Your task to perform on an android device: uninstall "LinkedIn" Image 0: 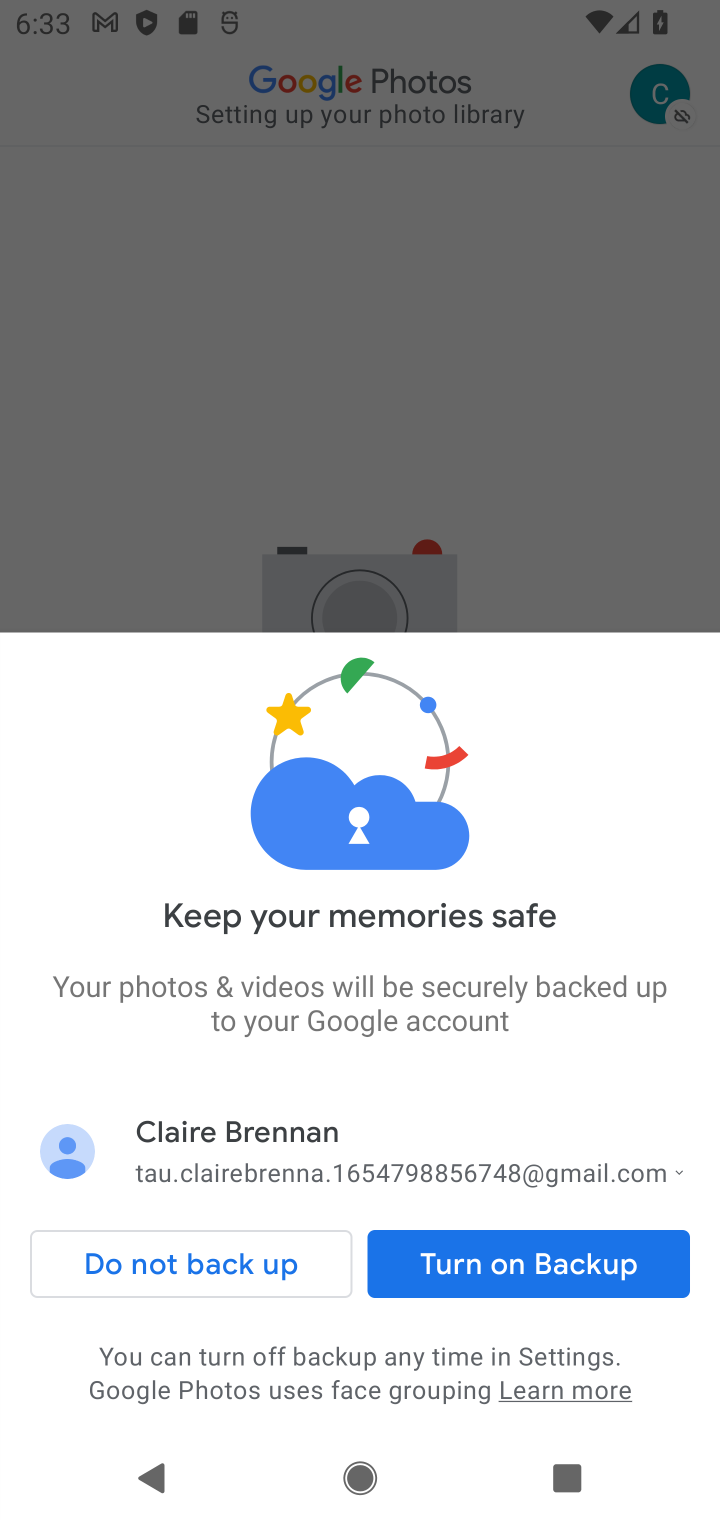
Step 0: press home button
Your task to perform on an android device: uninstall "LinkedIn" Image 1: 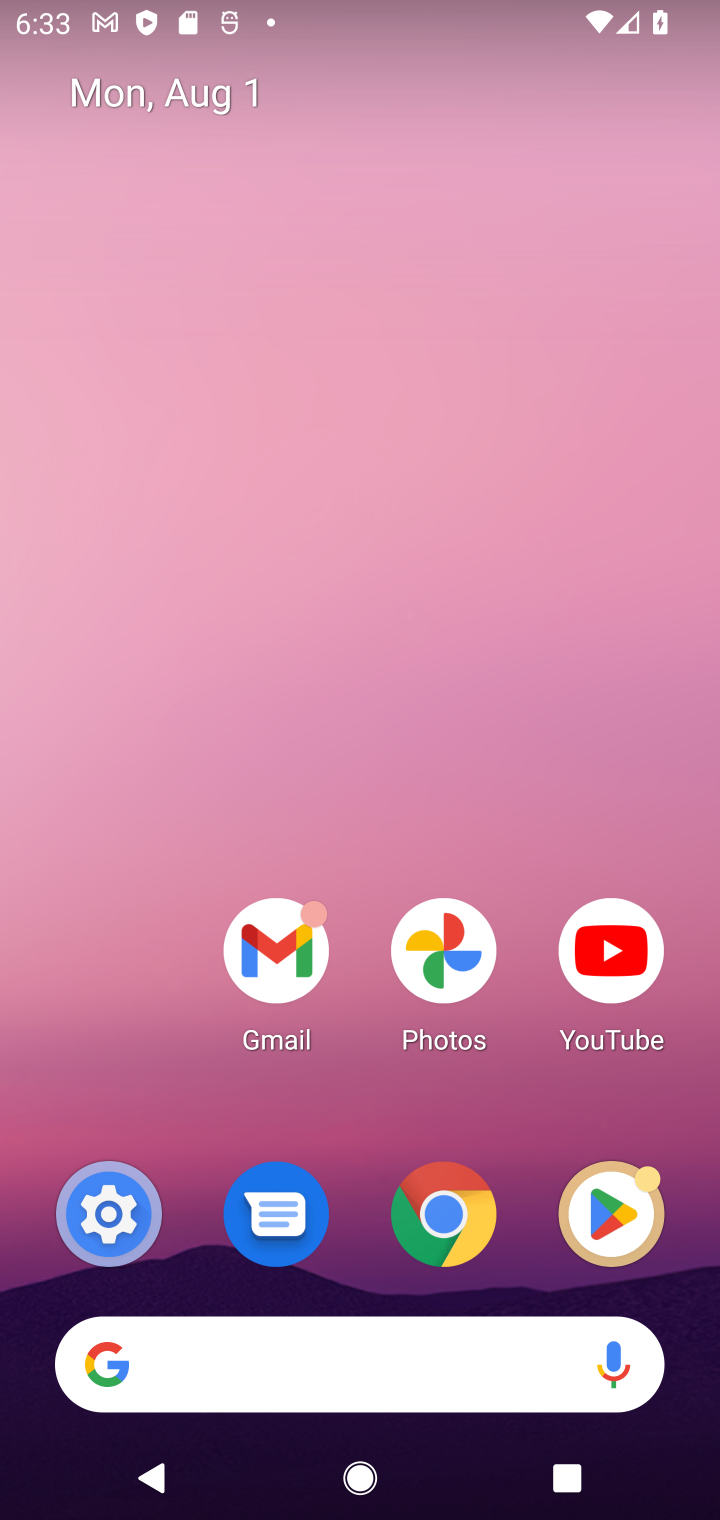
Step 1: click (607, 1194)
Your task to perform on an android device: uninstall "LinkedIn" Image 2: 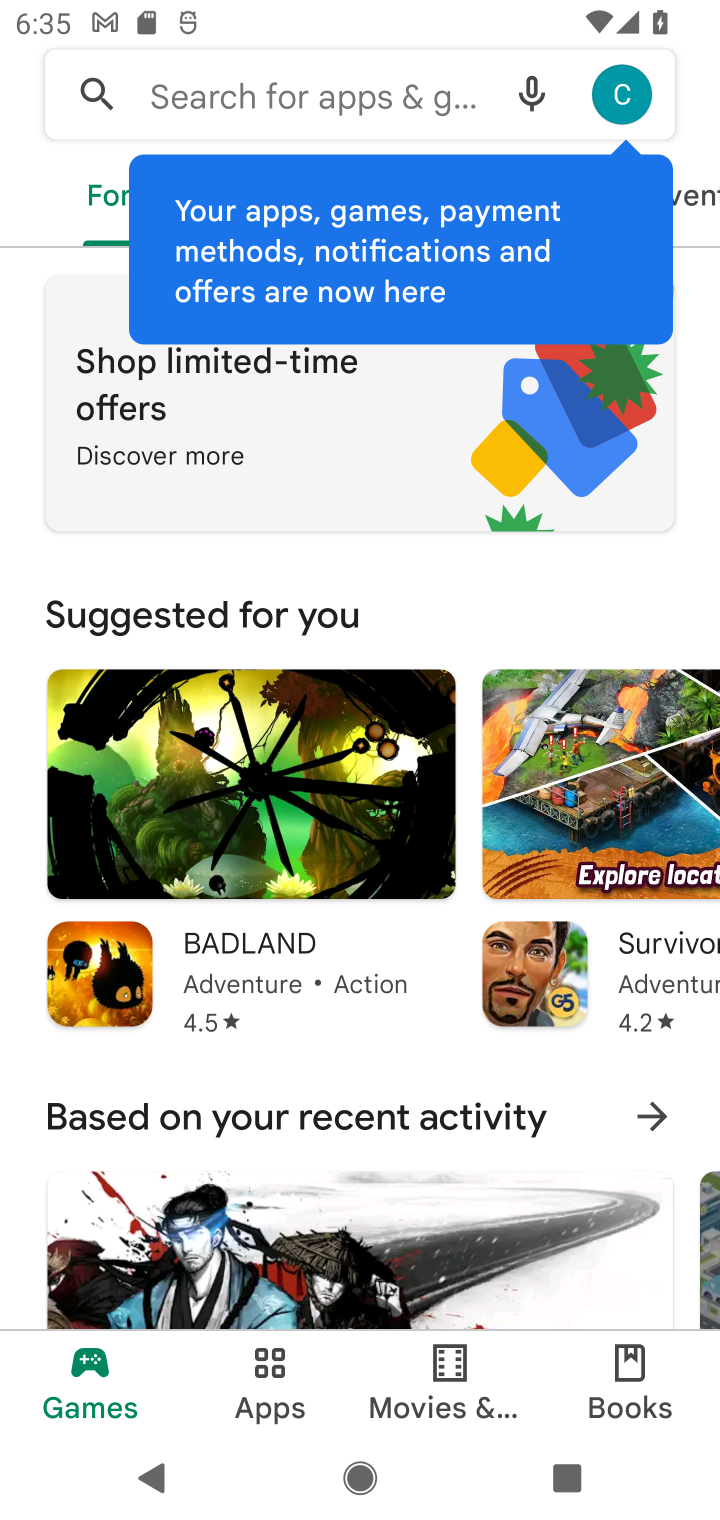
Step 2: press back button
Your task to perform on an android device: uninstall "LinkedIn" Image 3: 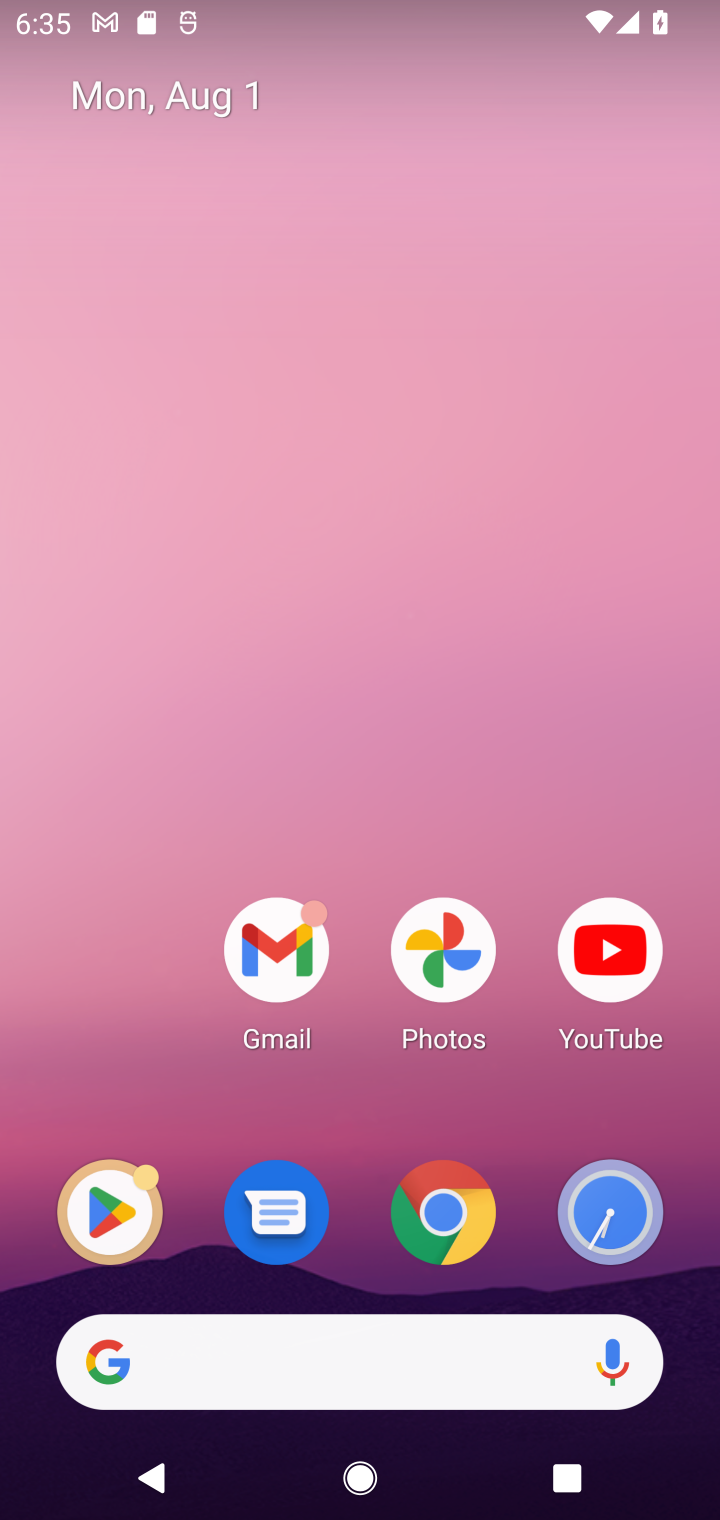
Step 3: press back button
Your task to perform on an android device: uninstall "LinkedIn" Image 4: 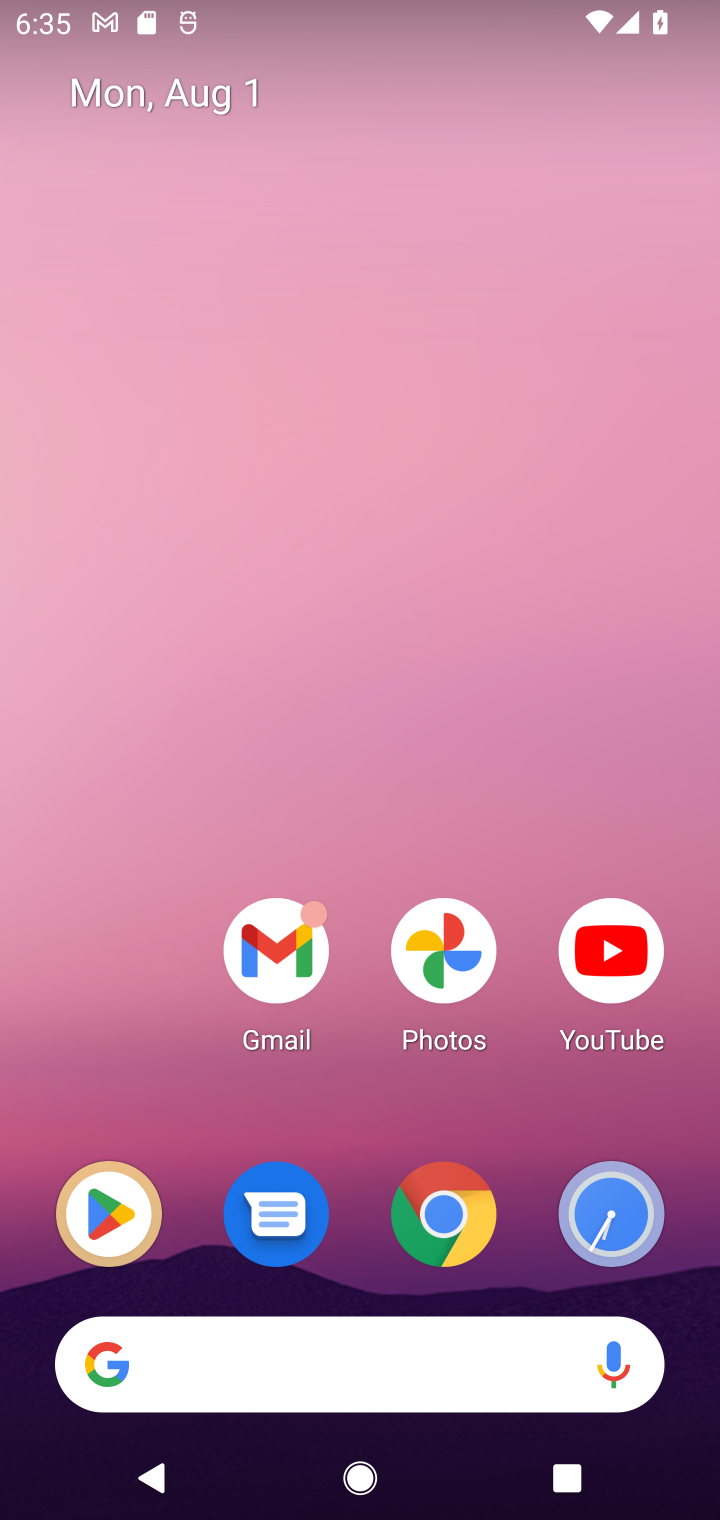
Step 4: drag from (105, 1198) to (330, 555)
Your task to perform on an android device: uninstall "LinkedIn" Image 5: 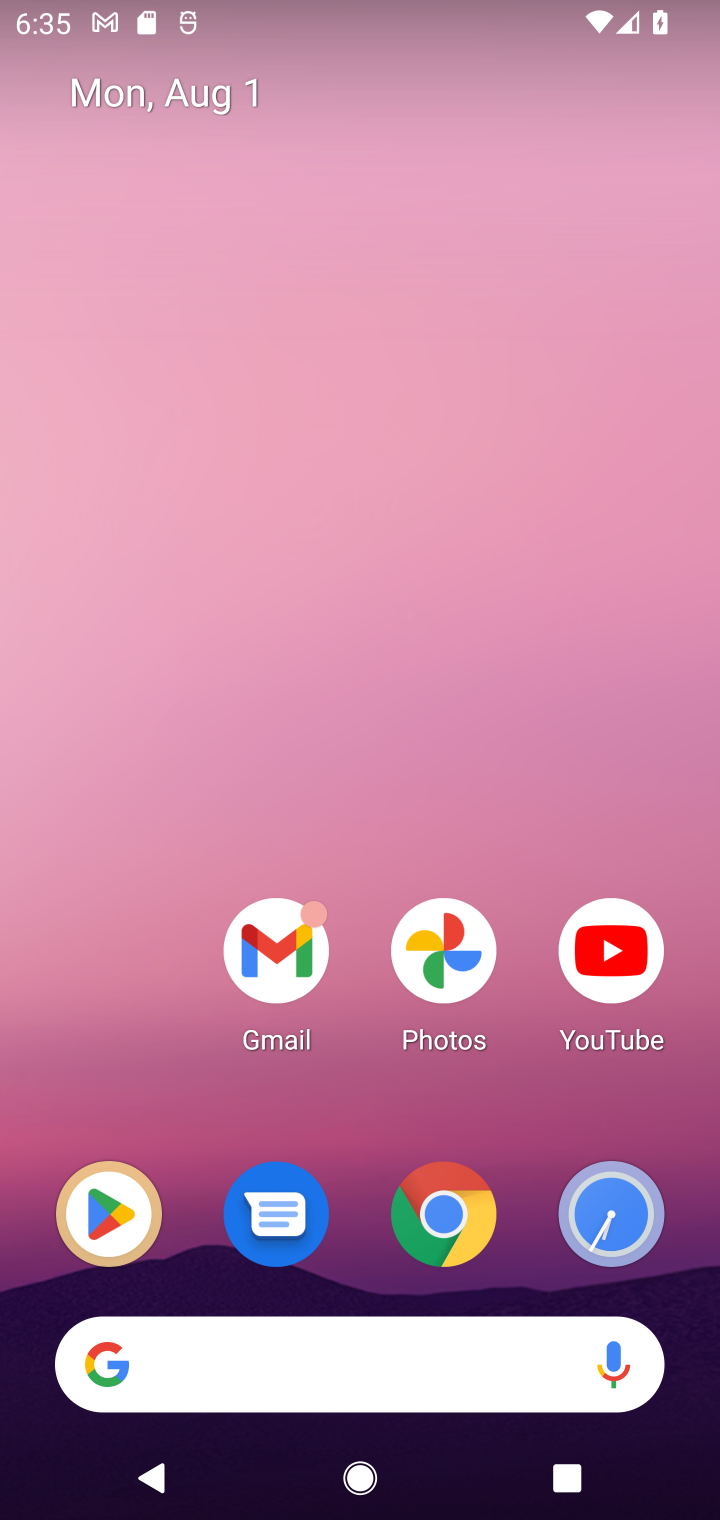
Step 5: drag from (120, 1201) to (423, 470)
Your task to perform on an android device: uninstall "LinkedIn" Image 6: 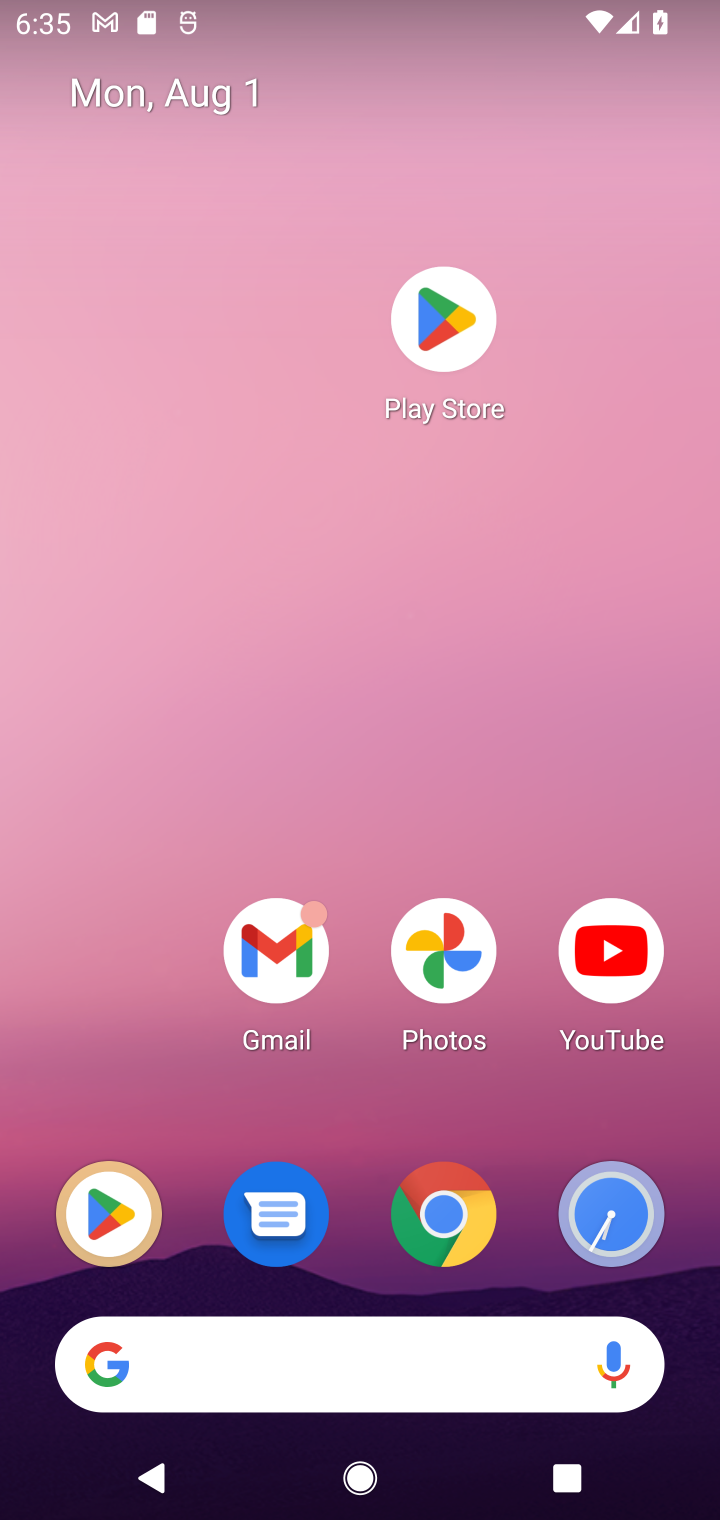
Step 6: click (416, 329)
Your task to perform on an android device: uninstall "LinkedIn" Image 7: 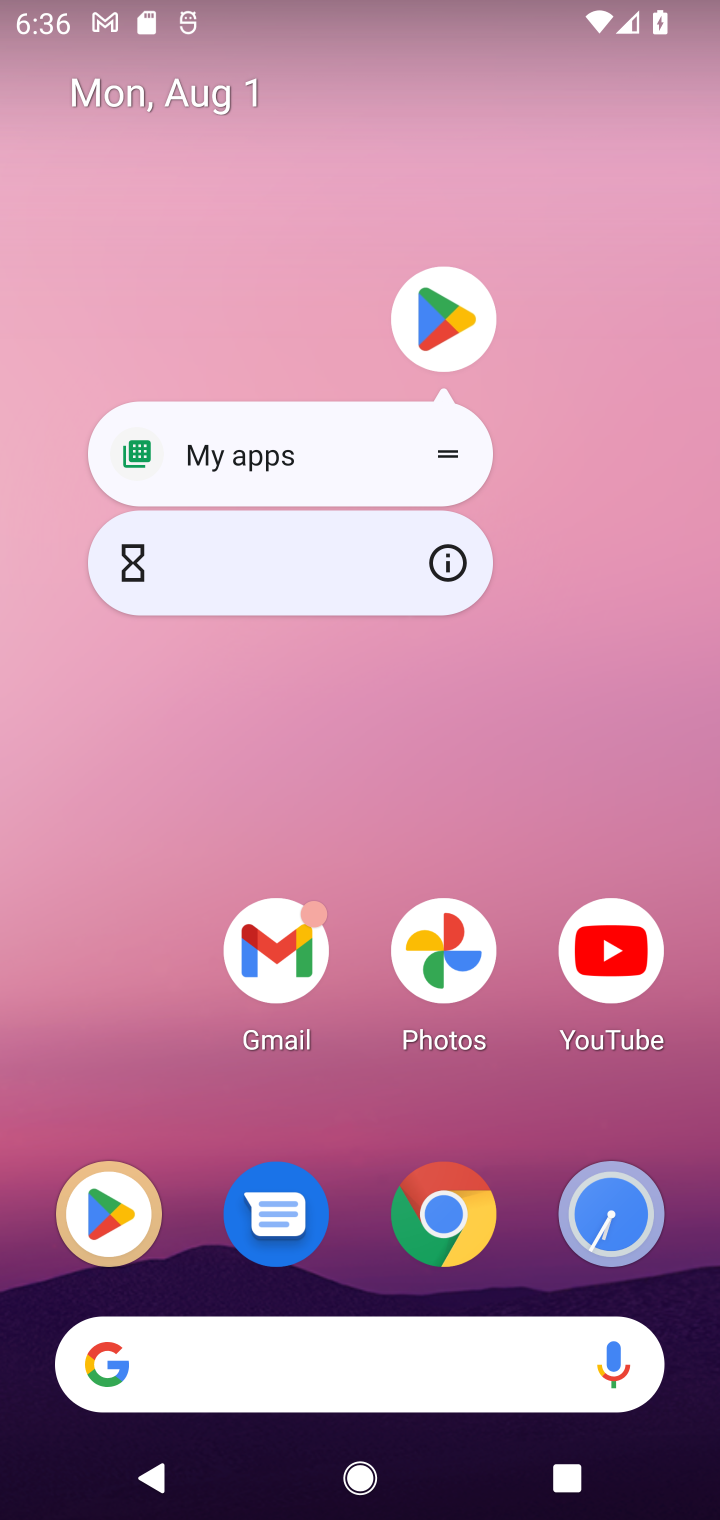
Step 7: click (415, 334)
Your task to perform on an android device: uninstall "LinkedIn" Image 8: 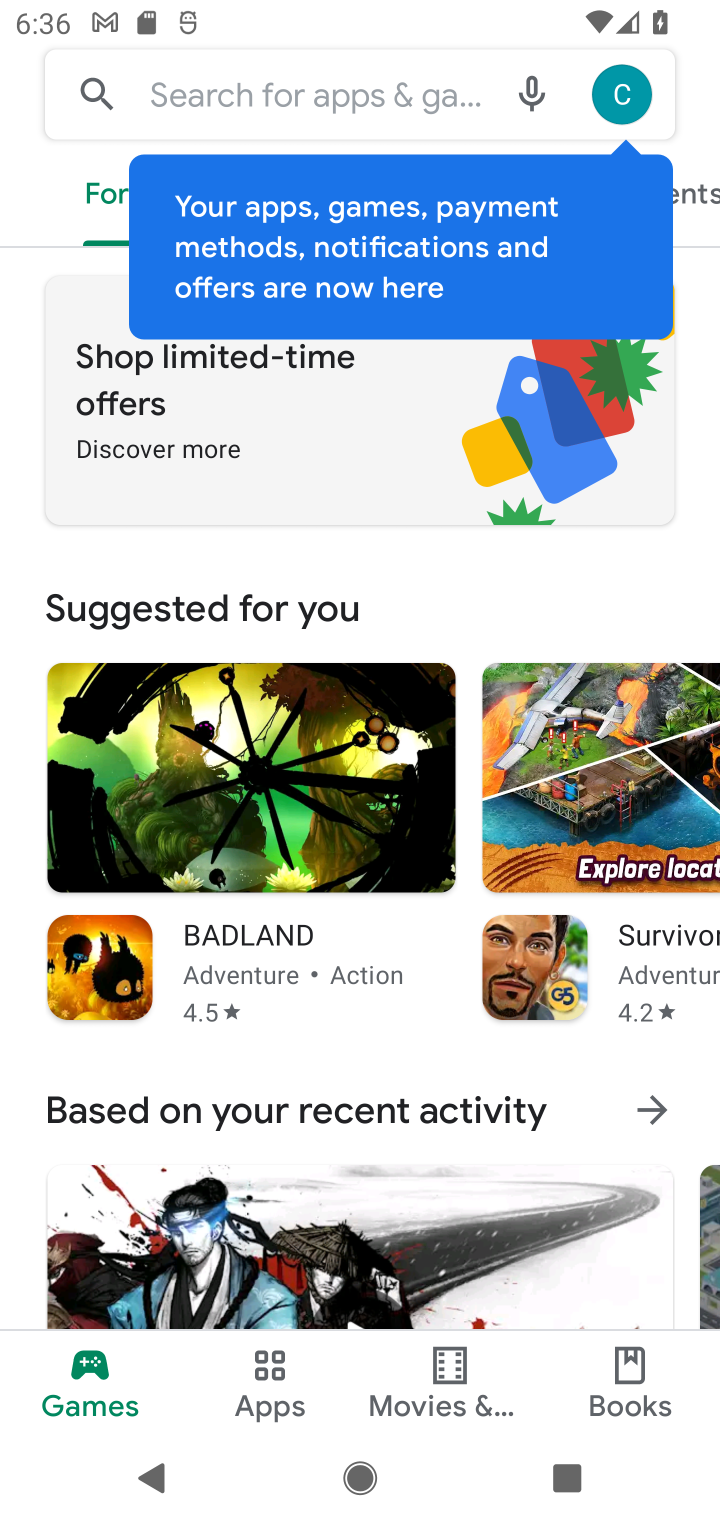
Step 8: click (193, 89)
Your task to perform on an android device: uninstall "LinkedIn" Image 9: 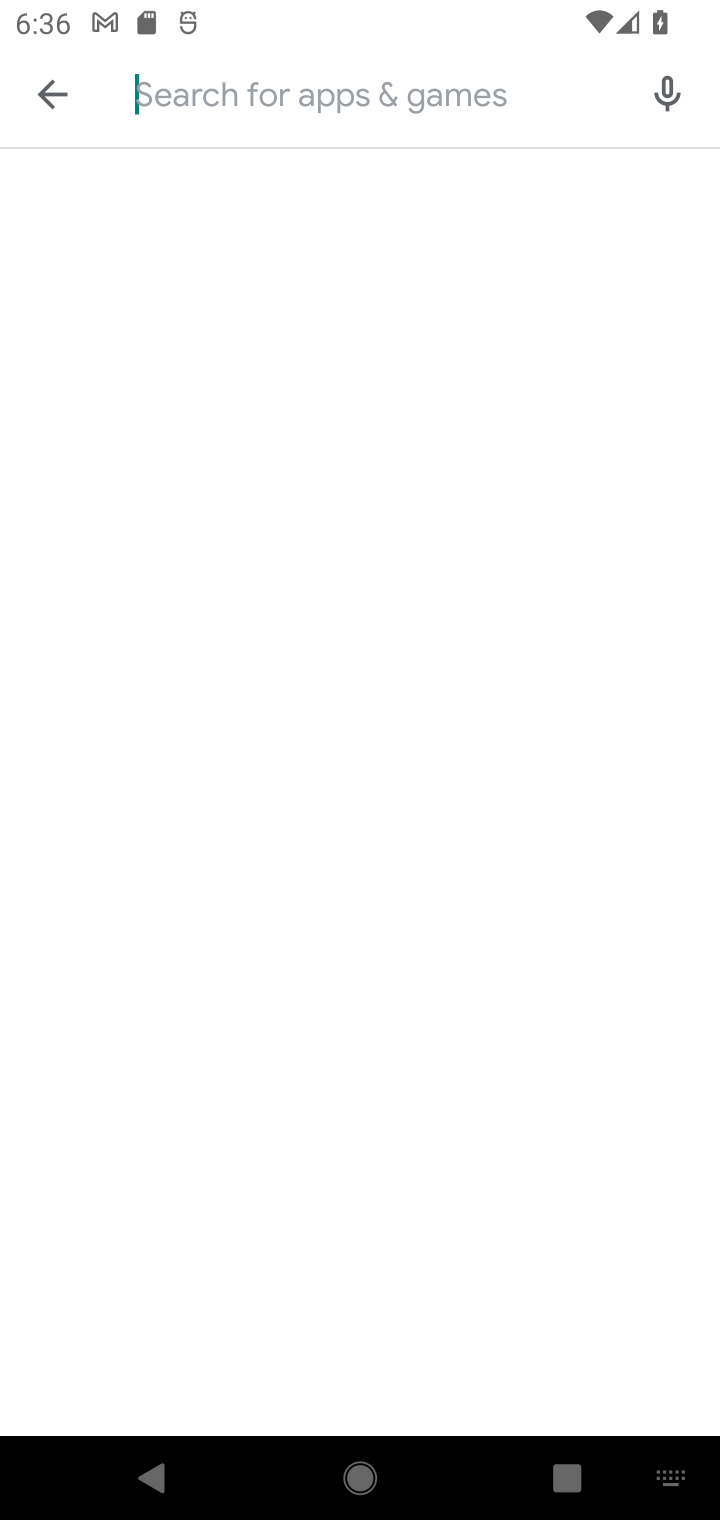
Step 9: type "linkedln"
Your task to perform on an android device: uninstall "LinkedIn" Image 10: 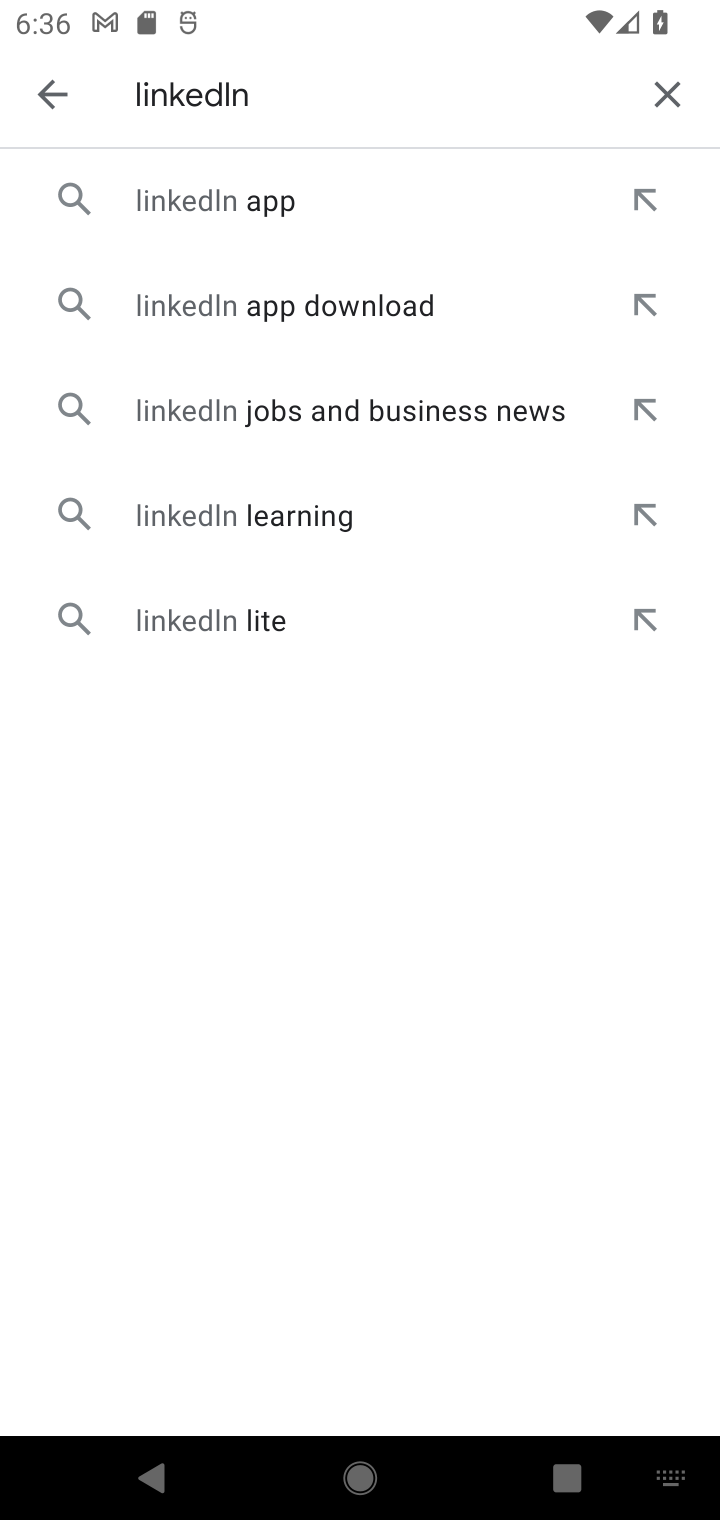
Step 10: click (136, 221)
Your task to perform on an android device: uninstall "LinkedIn" Image 11: 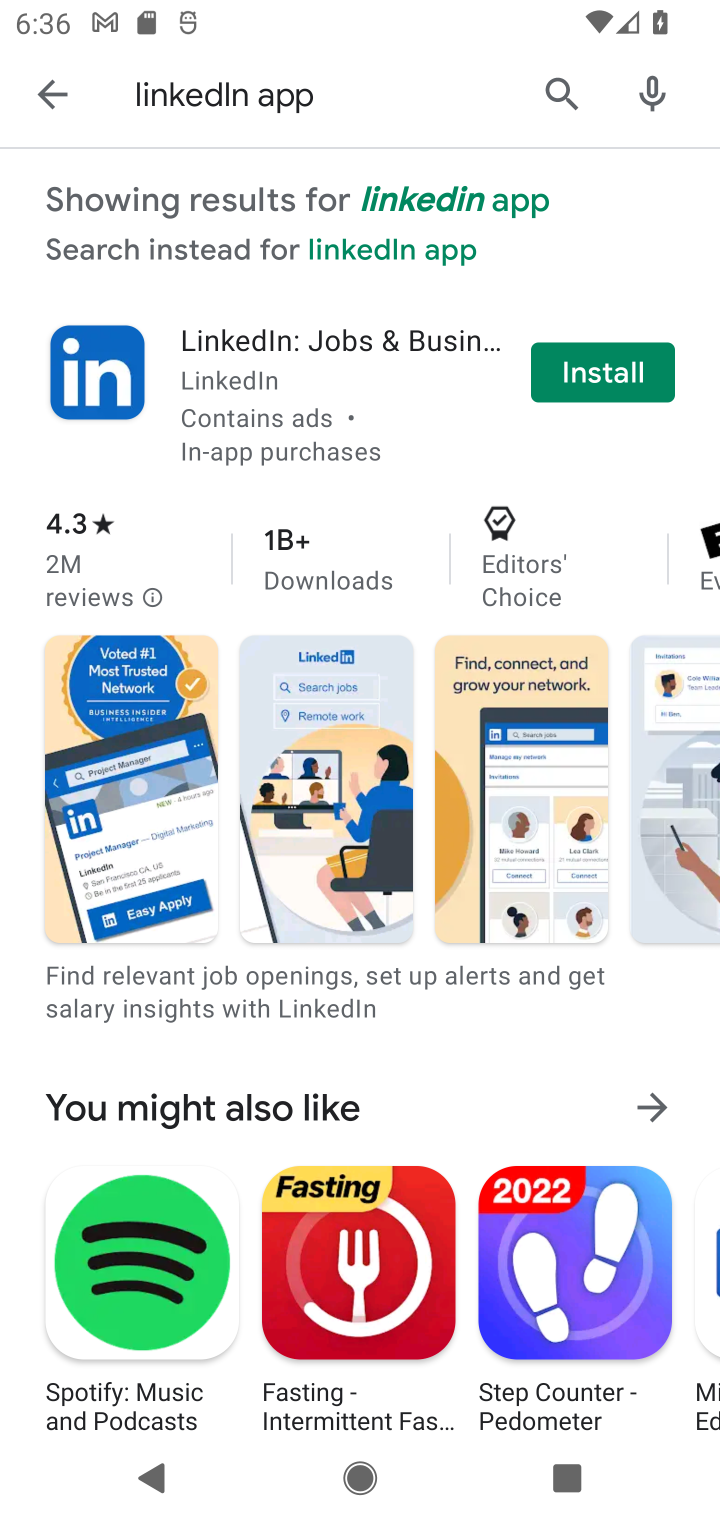
Step 11: task complete